Your task to perform on an android device: Toggle the flashlight Image 0: 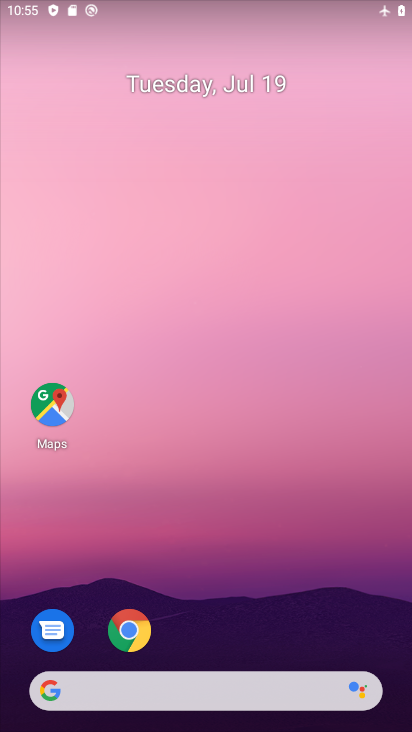
Step 0: drag from (236, 15) to (235, 451)
Your task to perform on an android device: Toggle the flashlight Image 1: 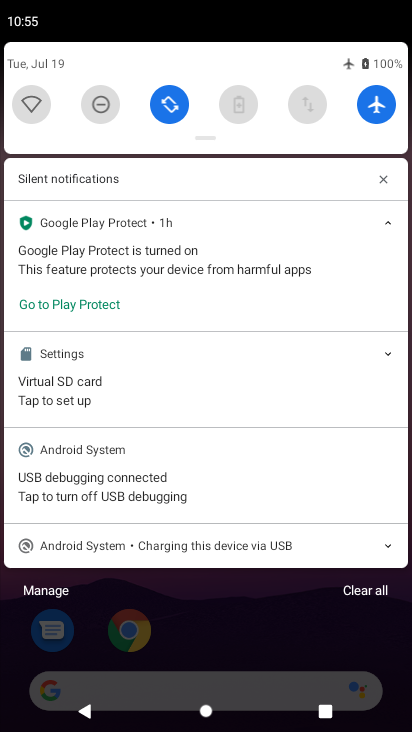
Step 1: drag from (211, 99) to (207, 546)
Your task to perform on an android device: Toggle the flashlight Image 2: 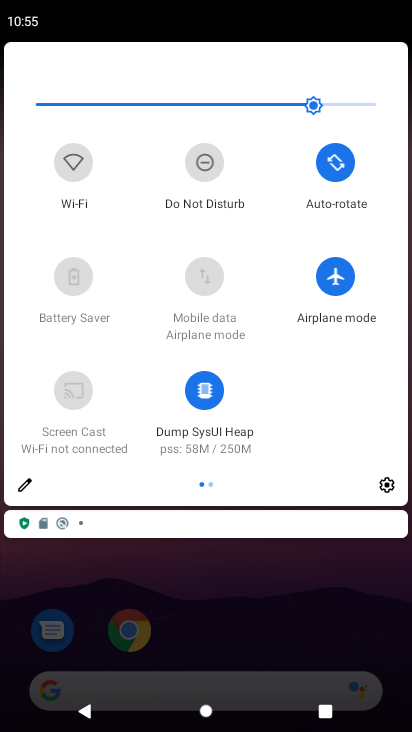
Step 2: drag from (325, 372) to (5, 397)
Your task to perform on an android device: Toggle the flashlight Image 3: 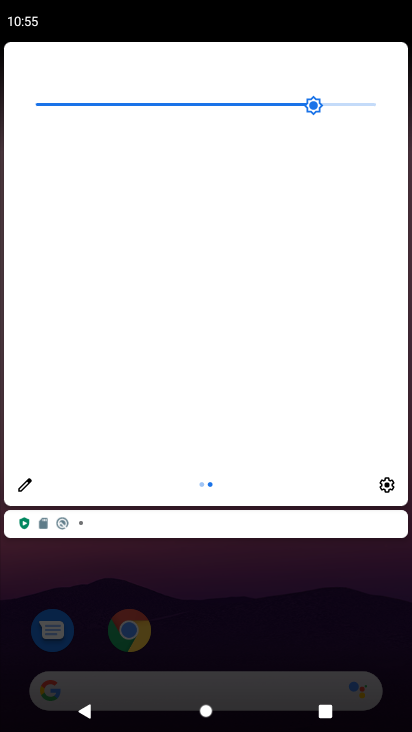
Step 3: click (23, 486)
Your task to perform on an android device: Toggle the flashlight Image 4: 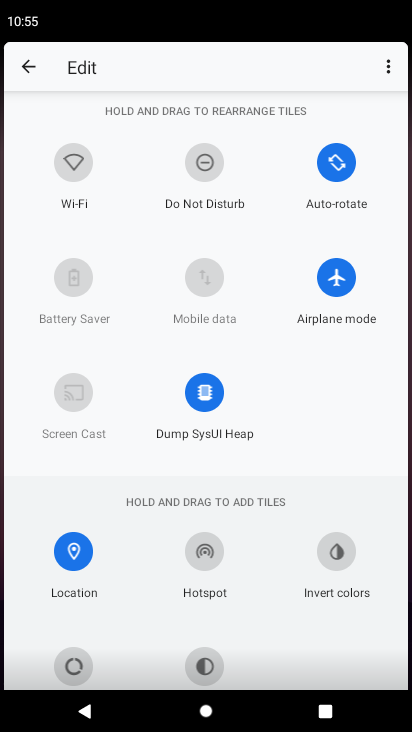
Step 4: task complete